Your task to perform on an android device: turn off translation in the chrome app Image 0: 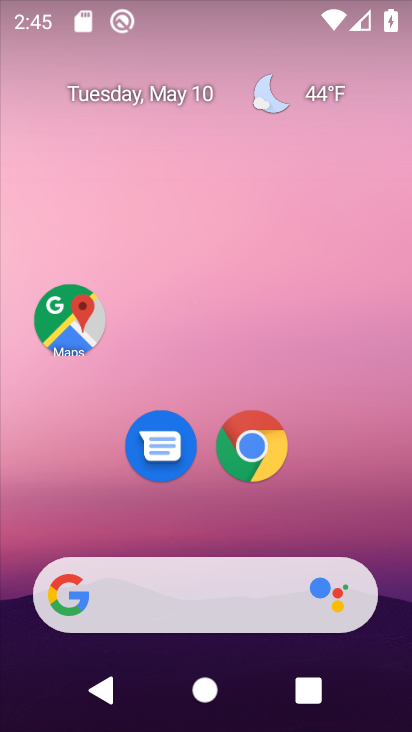
Step 0: drag from (350, 506) to (343, 62)
Your task to perform on an android device: turn off translation in the chrome app Image 1: 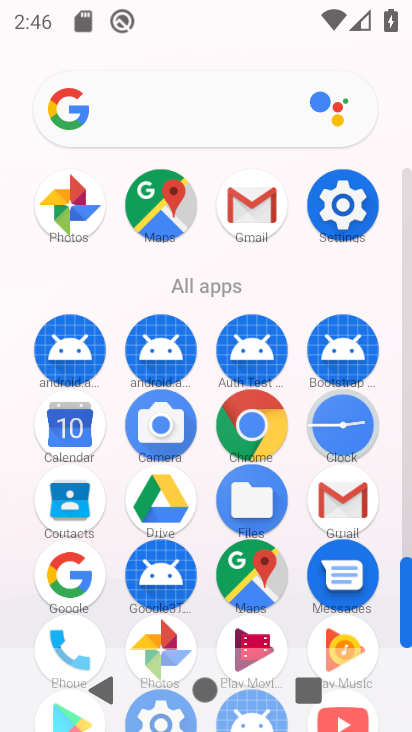
Step 1: click (258, 428)
Your task to perform on an android device: turn off translation in the chrome app Image 2: 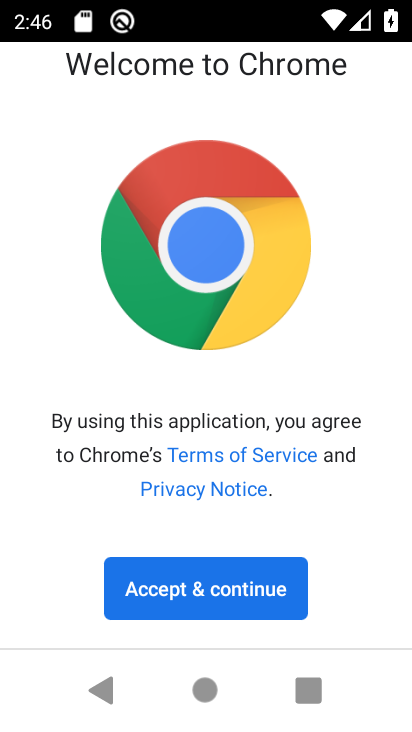
Step 2: click (230, 587)
Your task to perform on an android device: turn off translation in the chrome app Image 3: 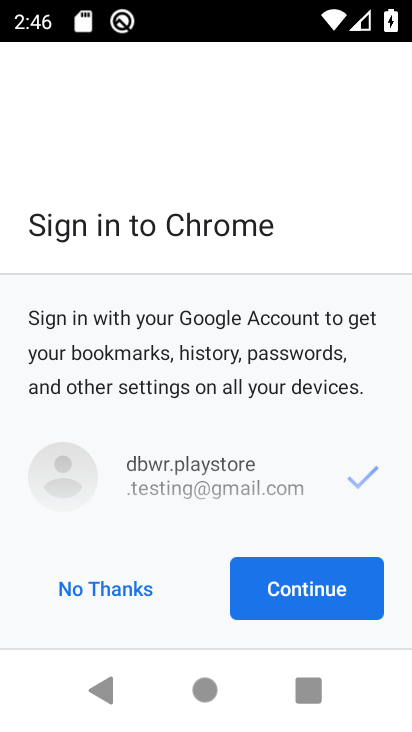
Step 3: click (109, 592)
Your task to perform on an android device: turn off translation in the chrome app Image 4: 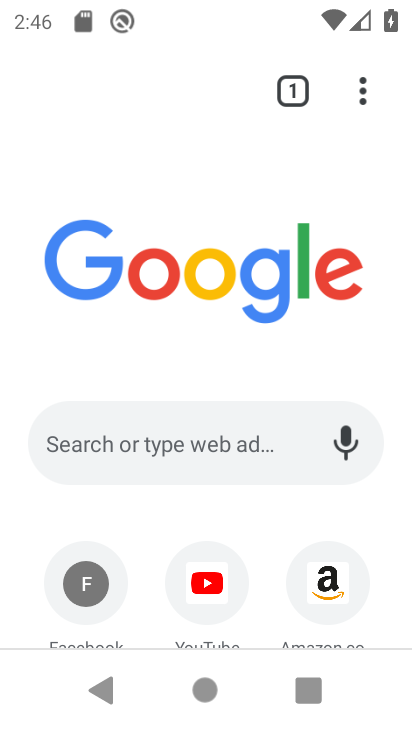
Step 4: click (363, 91)
Your task to perform on an android device: turn off translation in the chrome app Image 5: 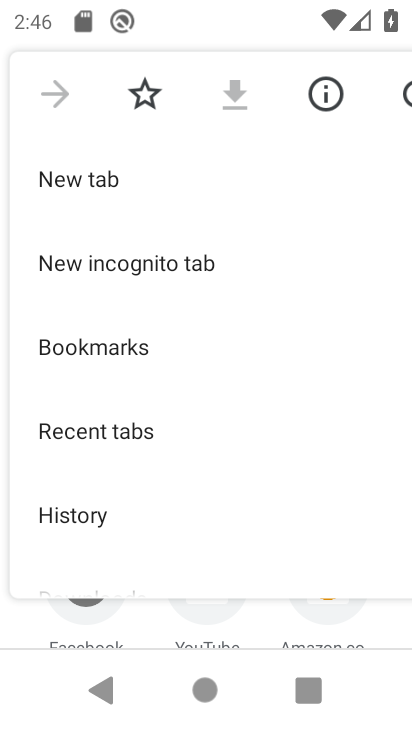
Step 5: drag from (168, 513) to (245, 188)
Your task to perform on an android device: turn off translation in the chrome app Image 6: 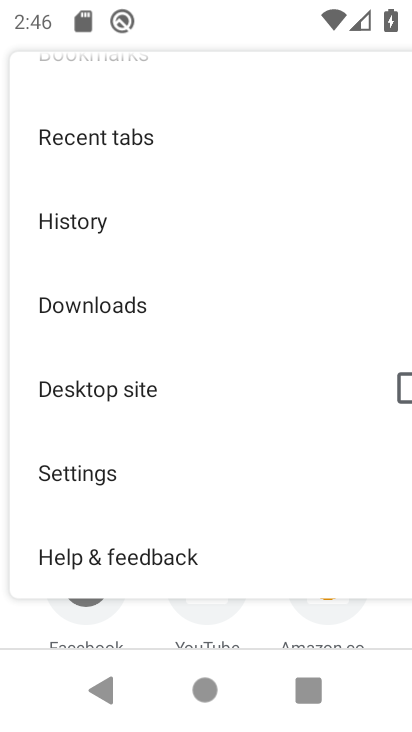
Step 6: drag from (188, 503) to (268, 135)
Your task to perform on an android device: turn off translation in the chrome app Image 7: 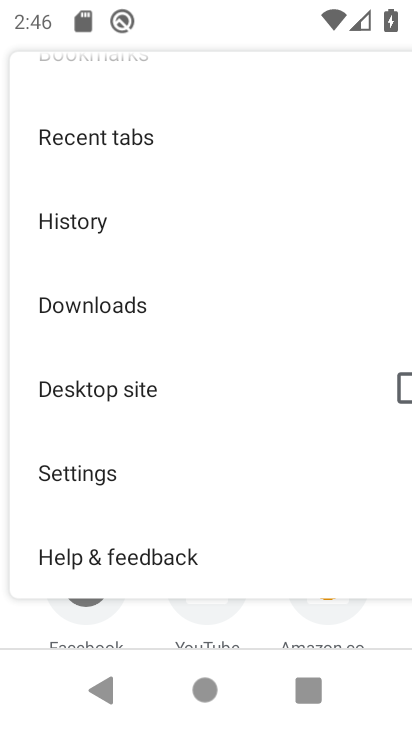
Step 7: click (119, 473)
Your task to perform on an android device: turn off translation in the chrome app Image 8: 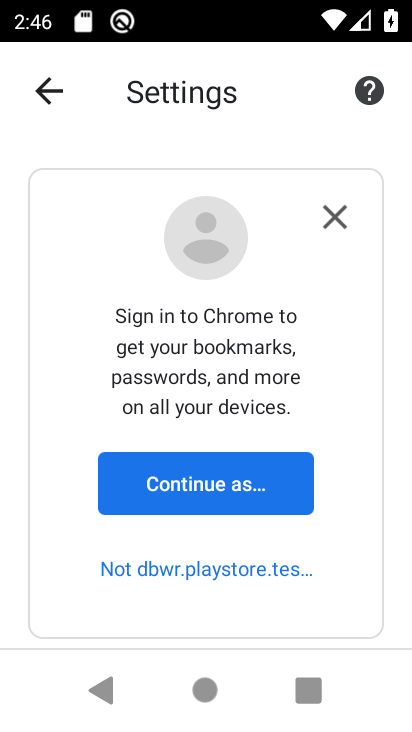
Step 8: click (196, 494)
Your task to perform on an android device: turn off translation in the chrome app Image 9: 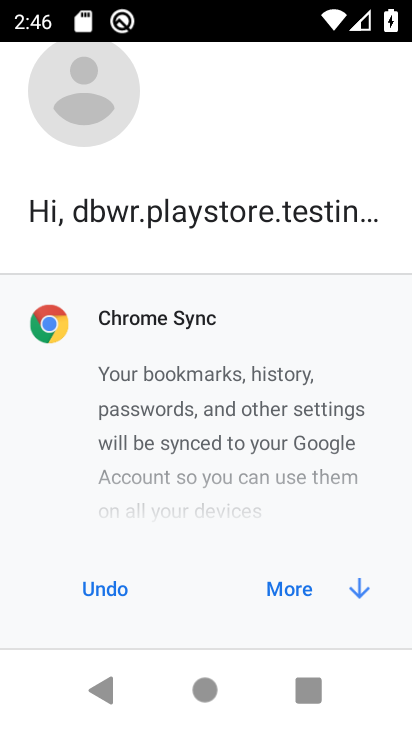
Step 9: click (292, 590)
Your task to perform on an android device: turn off translation in the chrome app Image 10: 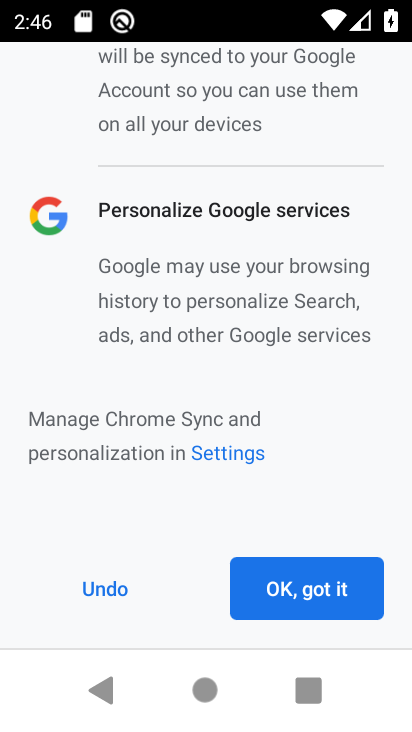
Step 10: click (292, 589)
Your task to perform on an android device: turn off translation in the chrome app Image 11: 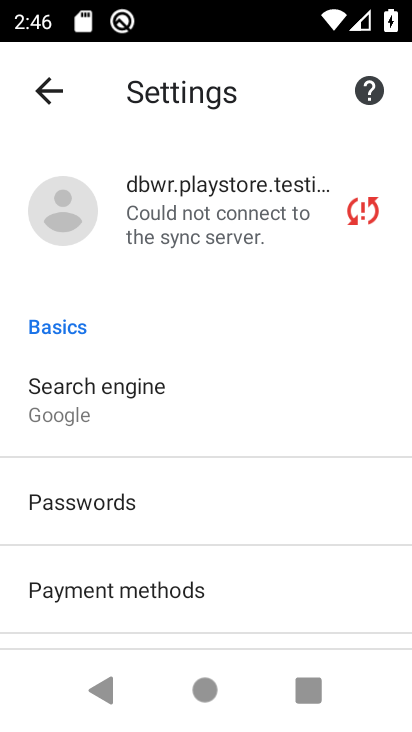
Step 11: drag from (292, 589) to (265, 219)
Your task to perform on an android device: turn off translation in the chrome app Image 12: 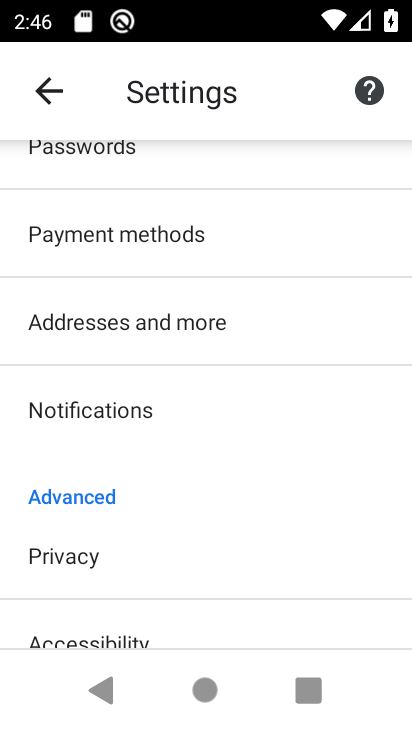
Step 12: drag from (163, 533) to (195, 190)
Your task to perform on an android device: turn off translation in the chrome app Image 13: 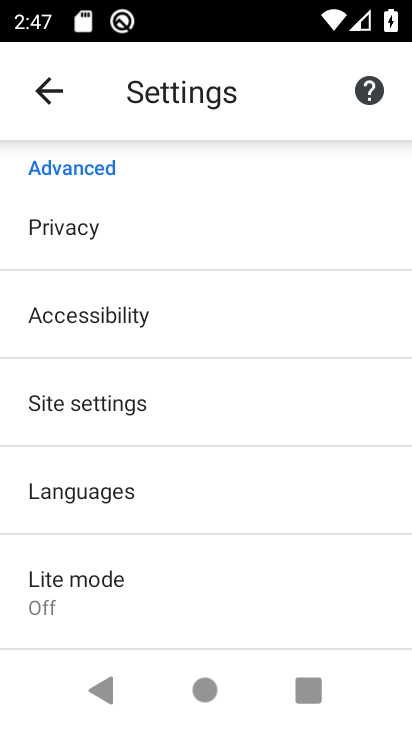
Step 13: click (170, 502)
Your task to perform on an android device: turn off translation in the chrome app Image 14: 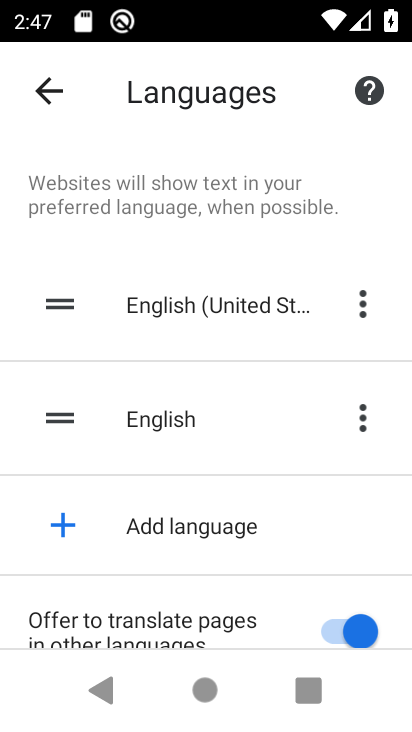
Step 14: drag from (183, 582) to (213, 302)
Your task to perform on an android device: turn off translation in the chrome app Image 15: 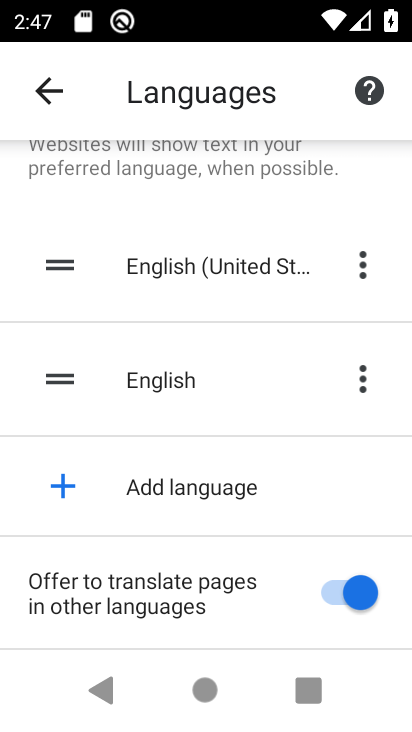
Step 15: click (343, 581)
Your task to perform on an android device: turn off translation in the chrome app Image 16: 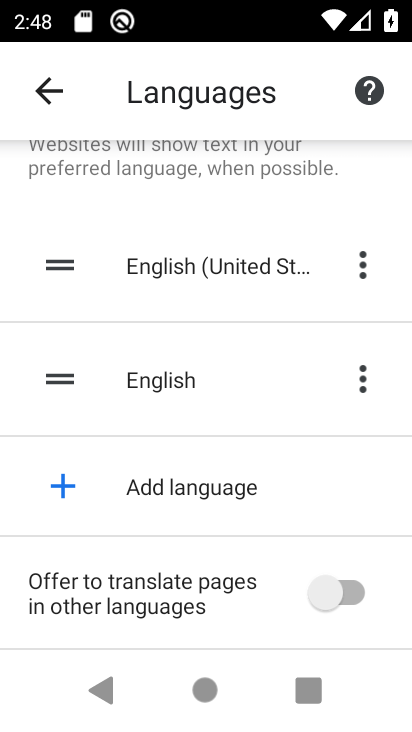
Step 16: task complete